Your task to perform on an android device: Go to ESPN.com Image 0: 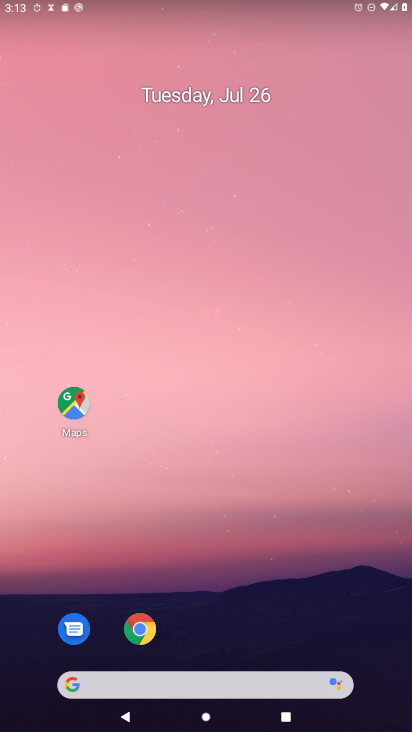
Step 0: drag from (255, 667) to (351, 6)
Your task to perform on an android device: Go to ESPN.com Image 1: 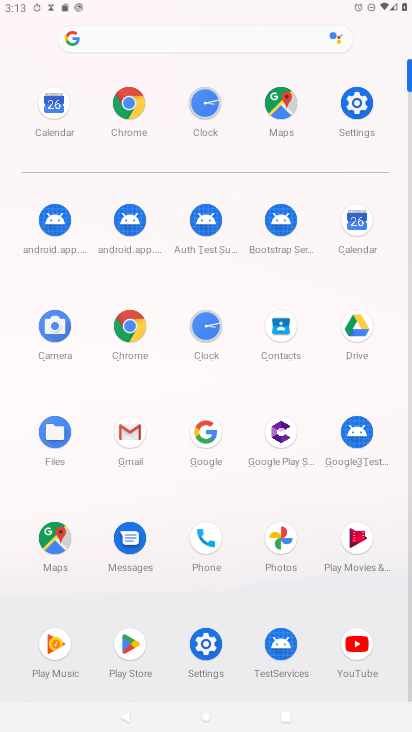
Step 1: click (135, 327)
Your task to perform on an android device: Go to ESPN.com Image 2: 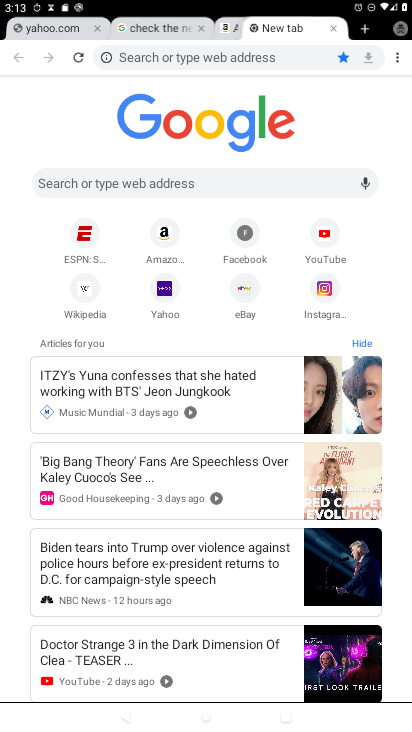
Step 2: click (83, 236)
Your task to perform on an android device: Go to ESPN.com Image 3: 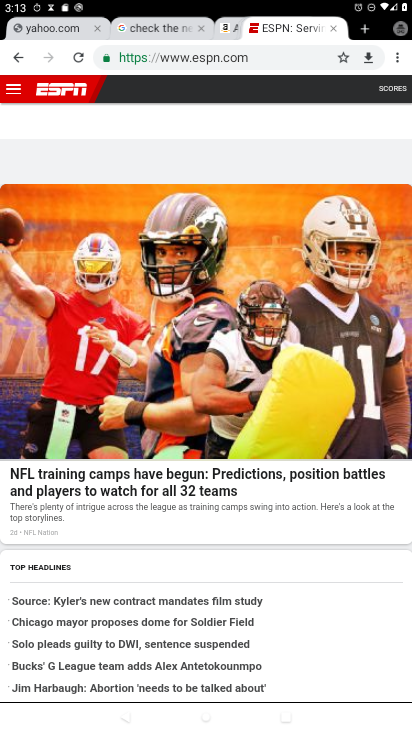
Step 3: task complete